Your task to perform on an android device: What's the weather today? Image 0: 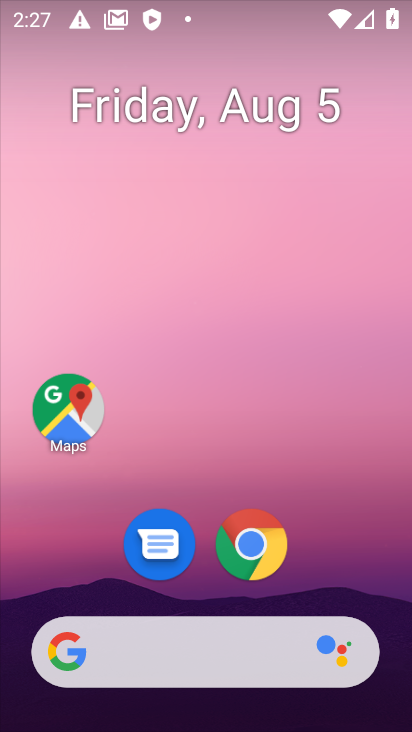
Step 0: drag from (229, 601) to (229, 71)
Your task to perform on an android device: What's the weather today? Image 1: 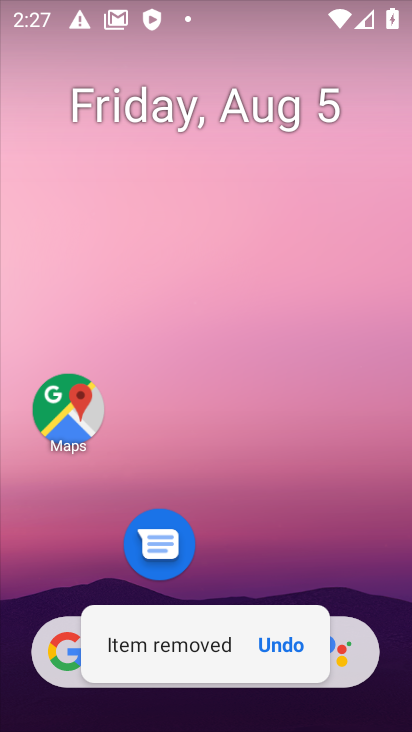
Step 1: click (310, 504)
Your task to perform on an android device: What's the weather today? Image 2: 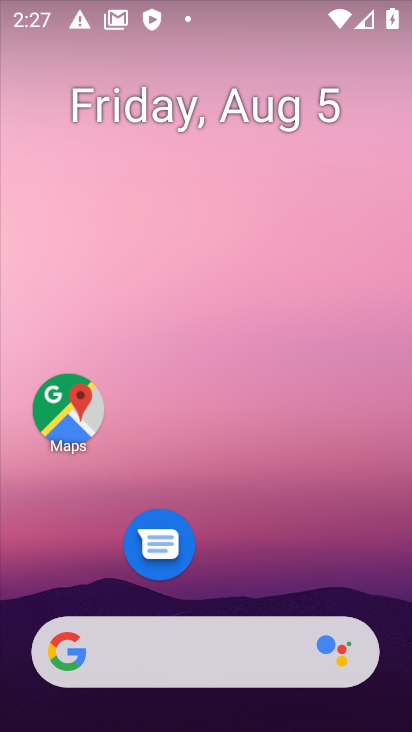
Step 2: click (245, 628)
Your task to perform on an android device: What's the weather today? Image 3: 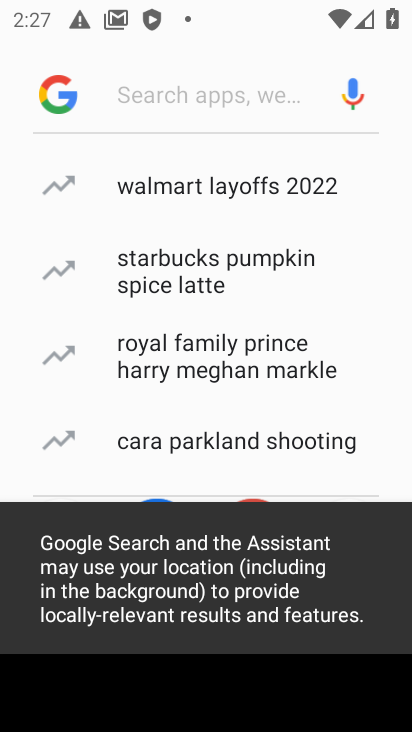
Step 3: drag from (136, 185) to (172, 459)
Your task to perform on an android device: What's the weather today? Image 4: 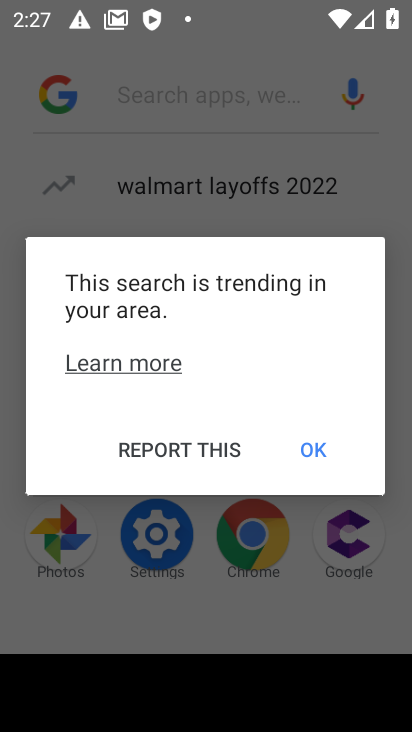
Step 4: click (317, 460)
Your task to perform on an android device: What's the weather today? Image 5: 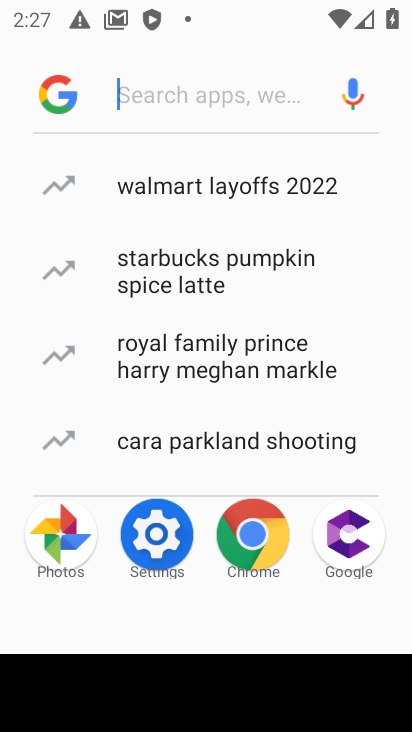
Step 5: type "weathe"
Your task to perform on an android device: What's the weather today? Image 6: 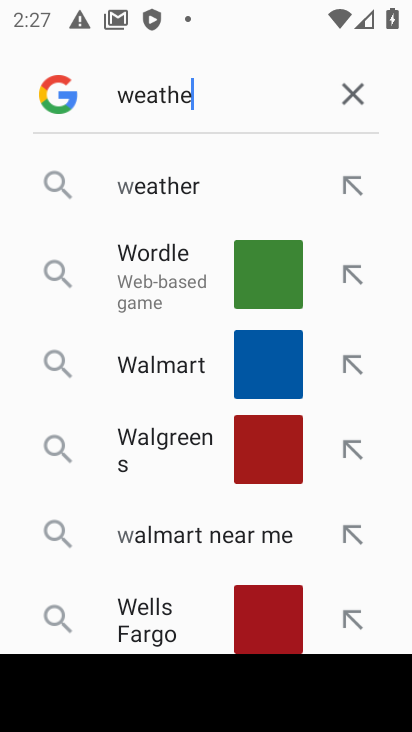
Step 6: type ""
Your task to perform on an android device: What's the weather today? Image 7: 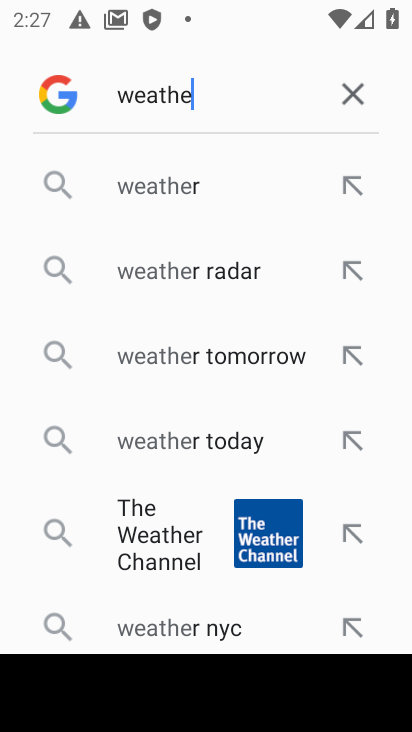
Step 7: click (148, 180)
Your task to perform on an android device: What's the weather today? Image 8: 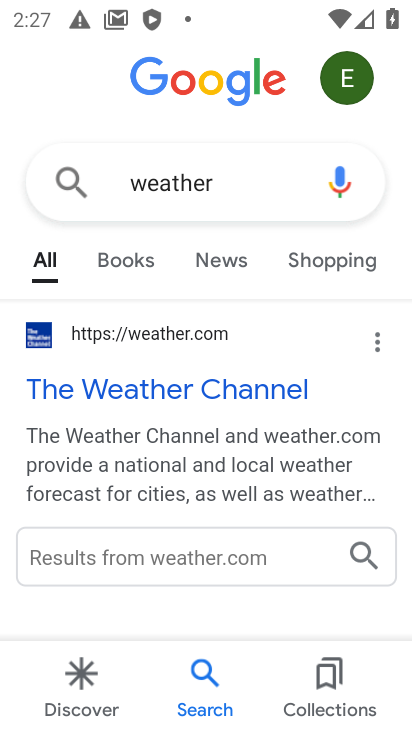
Step 8: click (156, 372)
Your task to perform on an android device: What's the weather today? Image 9: 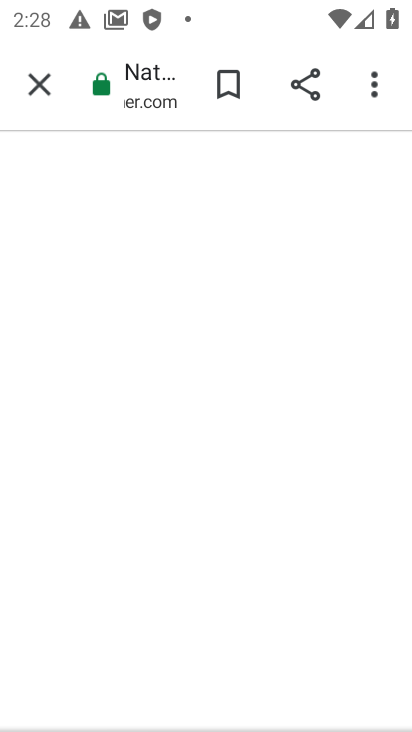
Step 9: task complete